Your task to perform on an android device: change timer sound Image 0: 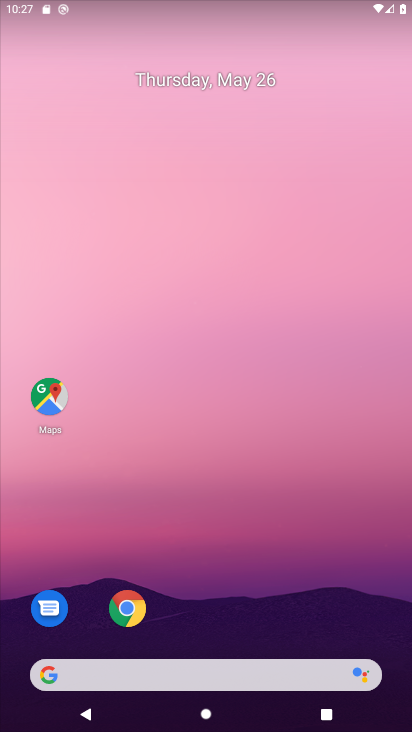
Step 0: drag from (393, 644) to (374, 172)
Your task to perform on an android device: change timer sound Image 1: 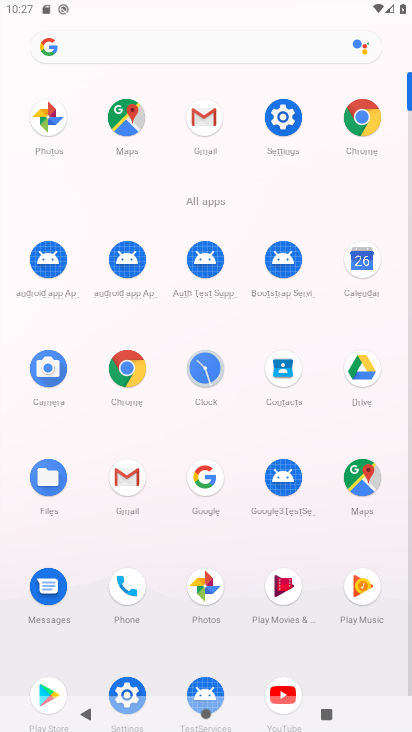
Step 1: click (194, 369)
Your task to perform on an android device: change timer sound Image 2: 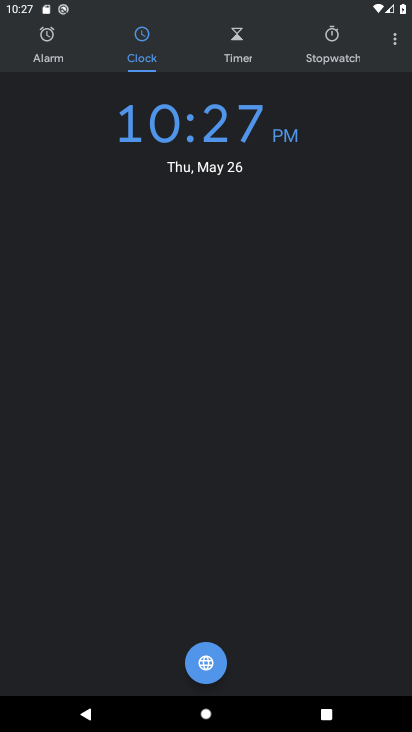
Step 2: click (391, 37)
Your task to perform on an android device: change timer sound Image 3: 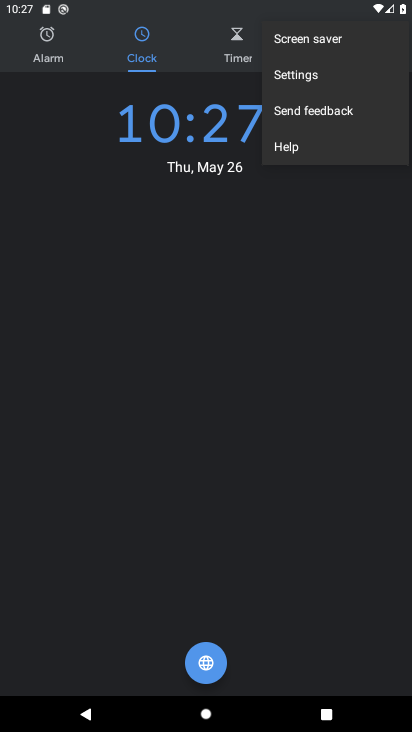
Step 3: click (305, 75)
Your task to perform on an android device: change timer sound Image 4: 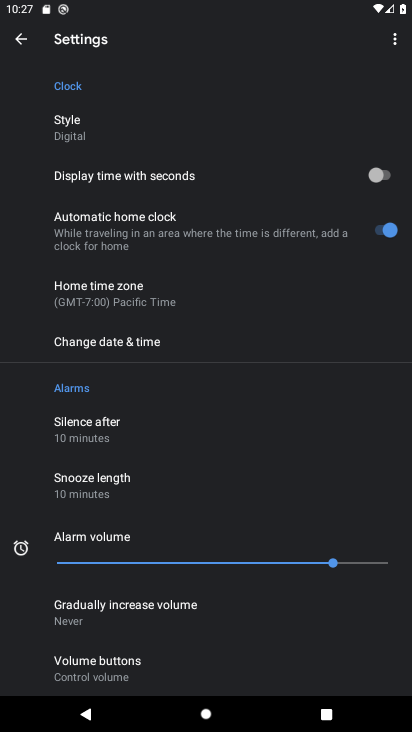
Step 4: drag from (189, 510) to (213, 137)
Your task to perform on an android device: change timer sound Image 5: 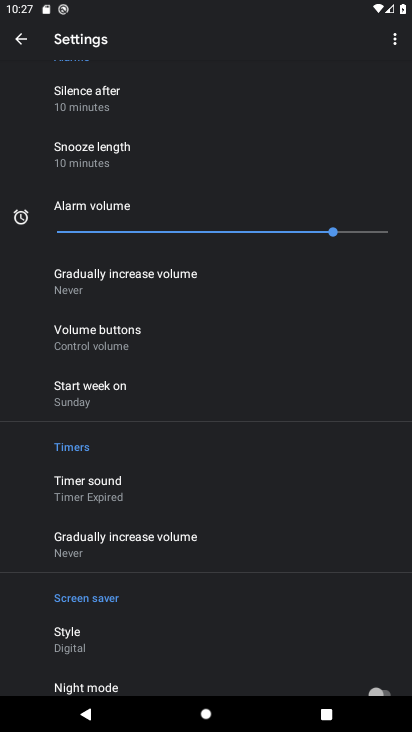
Step 5: drag from (236, 566) to (236, 372)
Your task to perform on an android device: change timer sound Image 6: 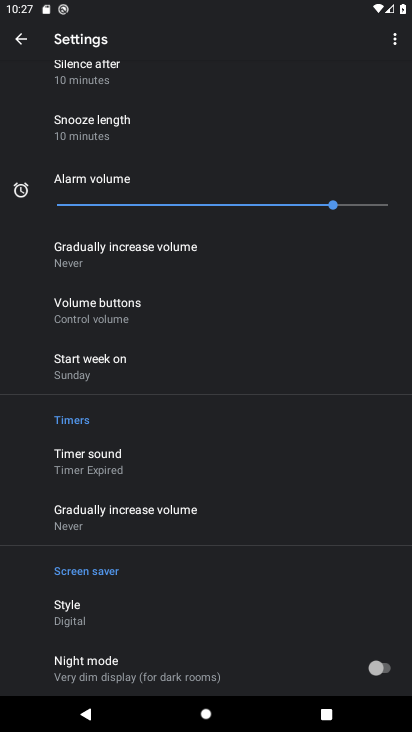
Step 6: click (62, 455)
Your task to perform on an android device: change timer sound Image 7: 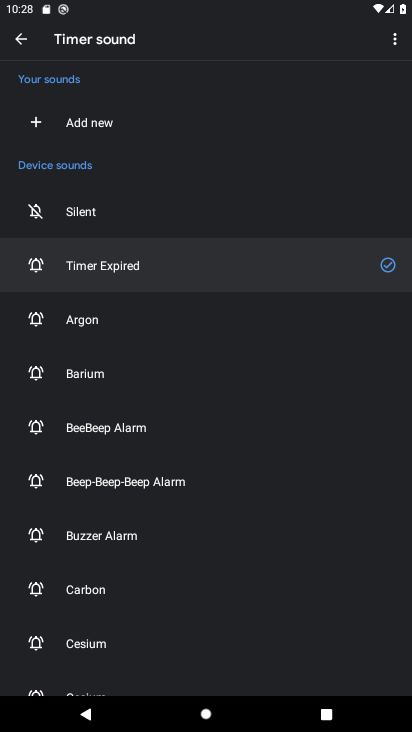
Step 7: click (60, 375)
Your task to perform on an android device: change timer sound Image 8: 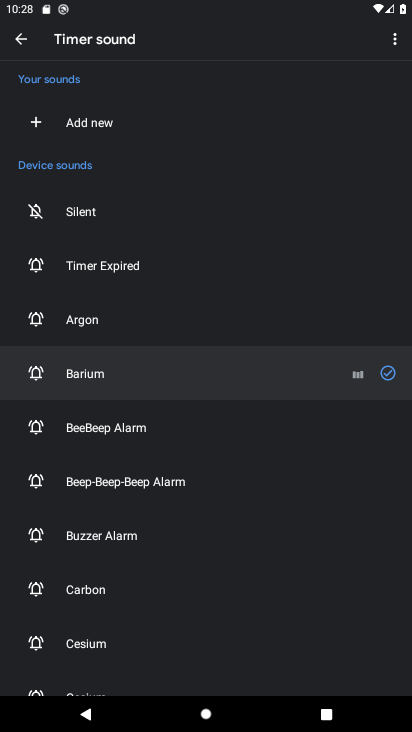
Step 8: task complete